Your task to perform on an android device: Open display settings Image 0: 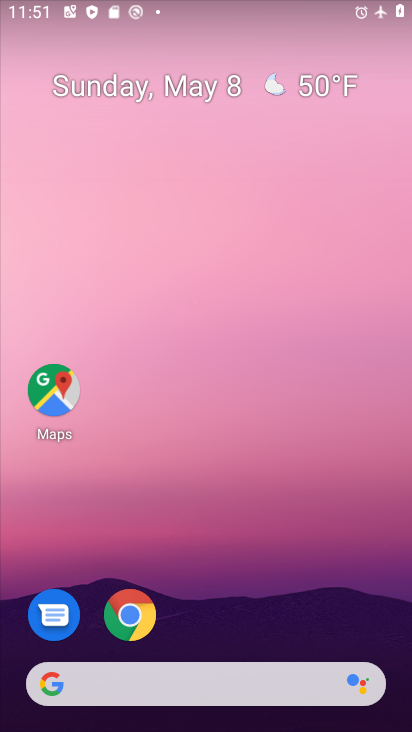
Step 0: drag from (229, 718) to (235, 169)
Your task to perform on an android device: Open display settings Image 1: 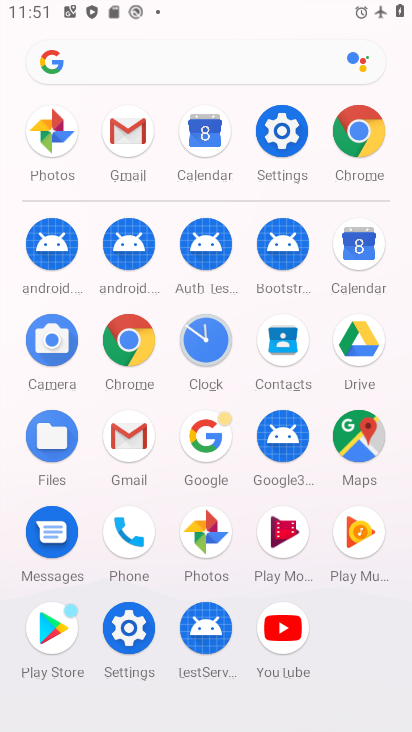
Step 1: click (266, 147)
Your task to perform on an android device: Open display settings Image 2: 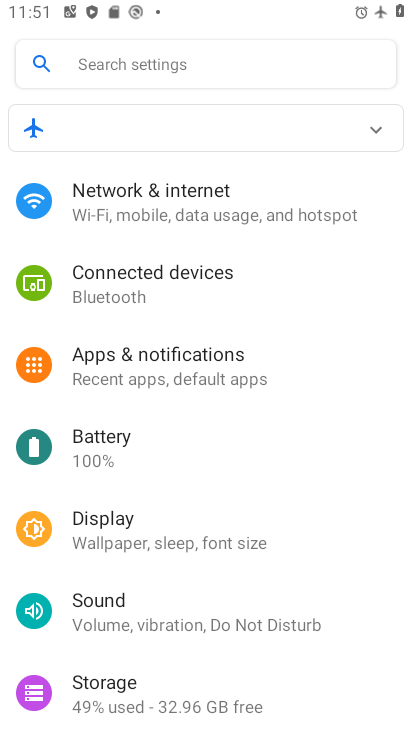
Step 2: click (157, 77)
Your task to perform on an android device: Open display settings Image 3: 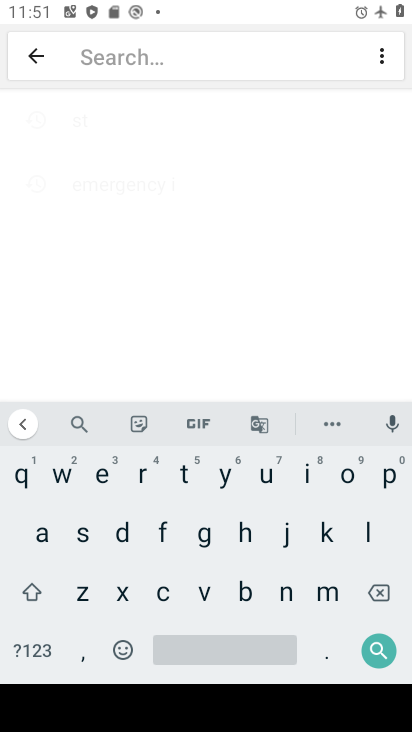
Step 3: click (27, 55)
Your task to perform on an android device: Open display settings Image 4: 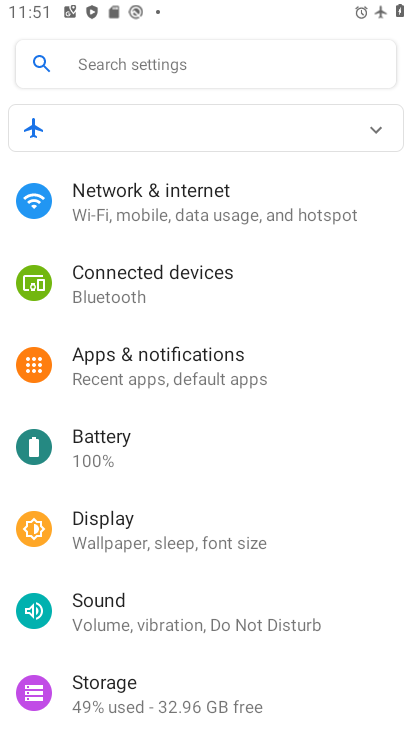
Step 4: click (133, 493)
Your task to perform on an android device: Open display settings Image 5: 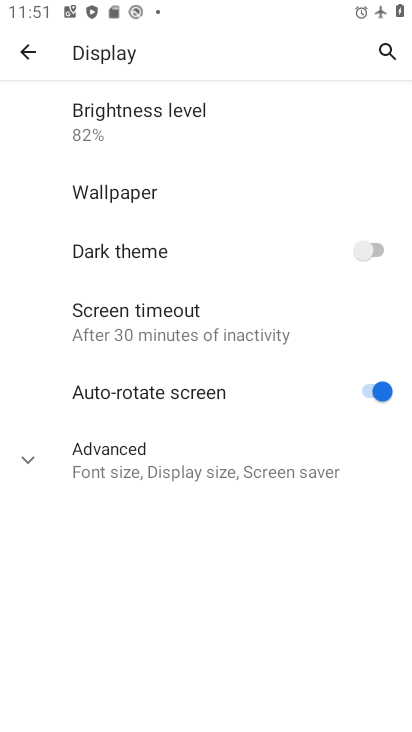
Step 5: task complete